Your task to perform on an android device: See recent photos Image 0: 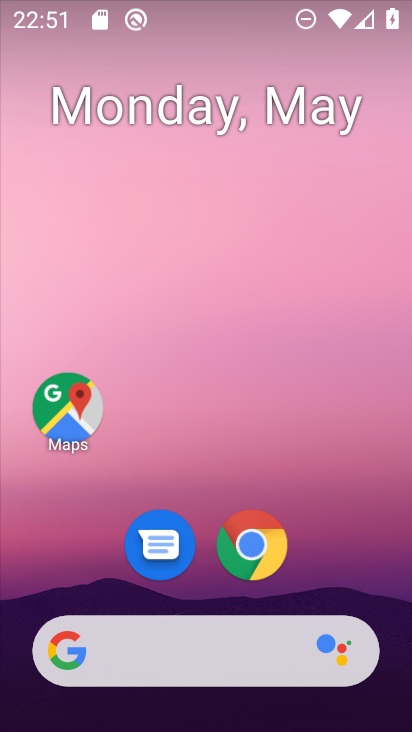
Step 0: drag from (326, 572) to (273, 206)
Your task to perform on an android device: See recent photos Image 1: 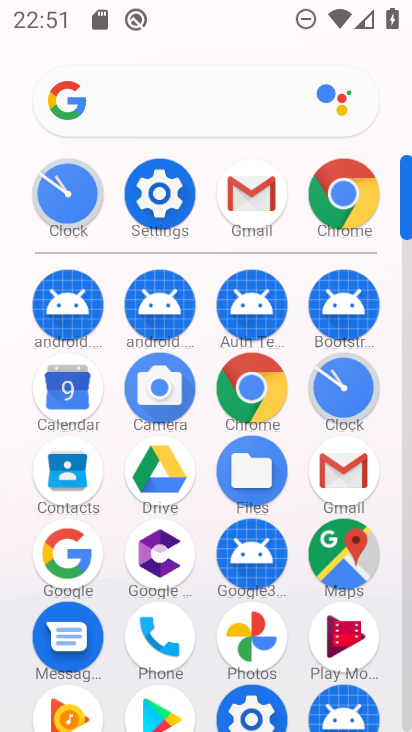
Step 1: click (247, 637)
Your task to perform on an android device: See recent photos Image 2: 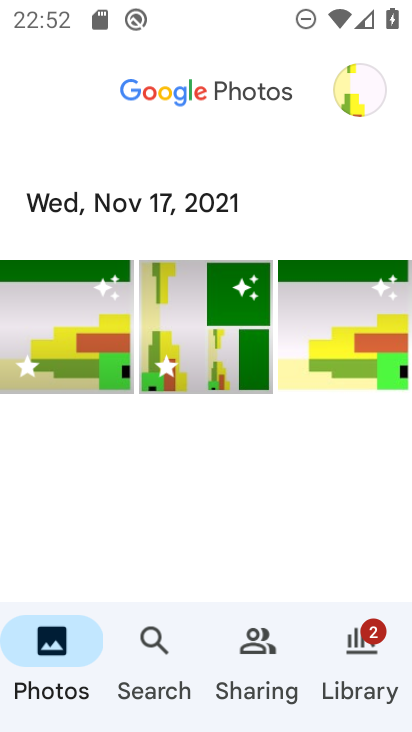
Step 2: task complete